Your task to perform on an android device: turn on wifi Image 0: 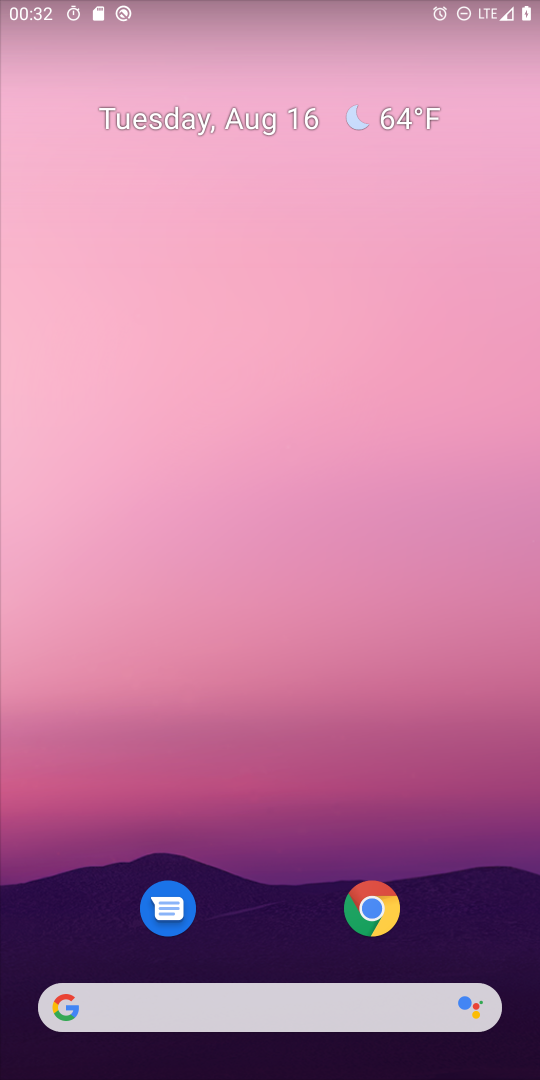
Step 0: drag from (246, 23) to (302, 562)
Your task to perform on an android device: turn on wifi Image 1: 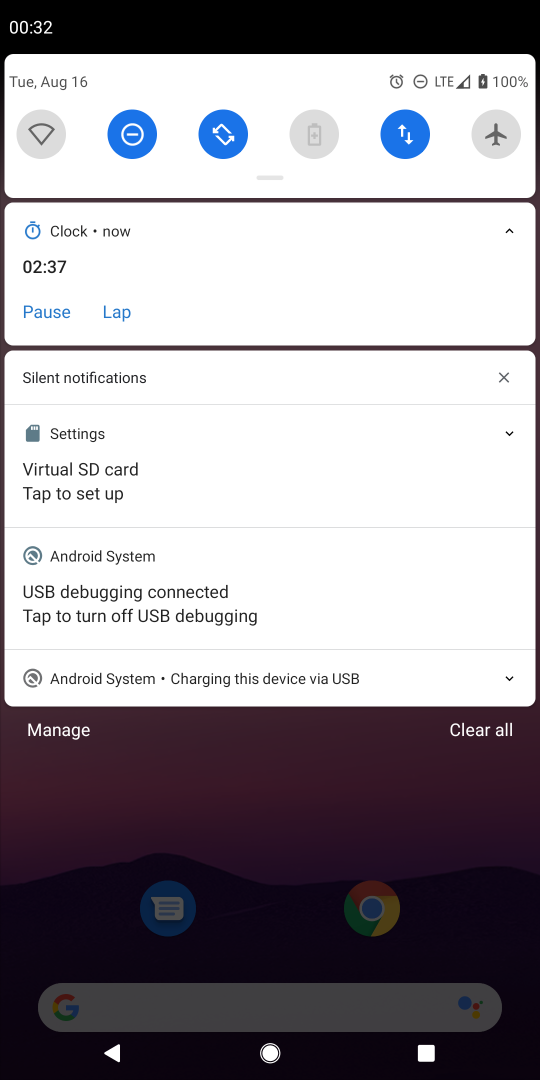
Step 1: click (37, 122)
Your task to perform on an android device: turn on wifi Image 2: 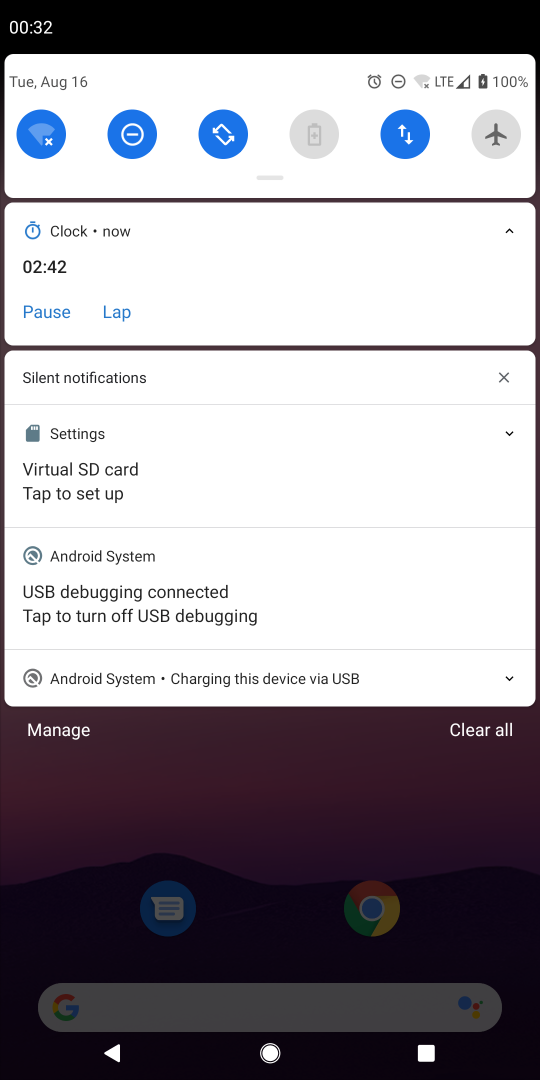
Step 2: task complete